Your task to perform on an android device: toggle javascript in the chrome app Image 0: 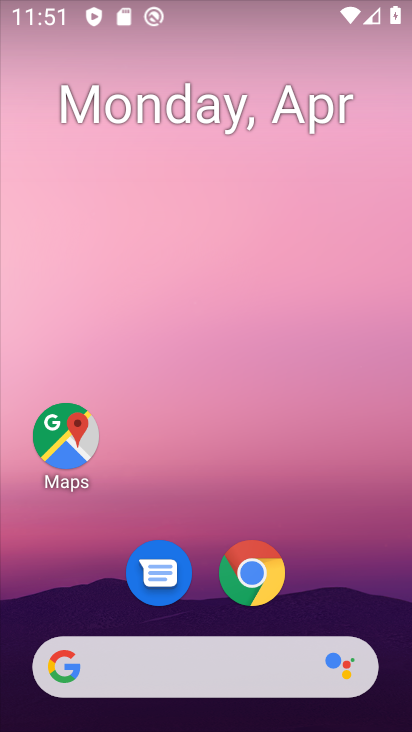
Step 0: click (223, 568)
Your task to perform on an android device: toggle javascript in the chrome app Image 1: 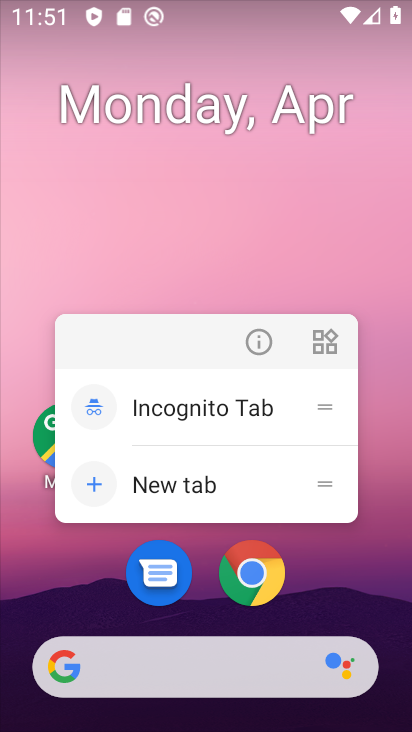
Step 1: click (235, 571)
Your task to perform on an android device: toggle javascript in the chrome app Image 2: 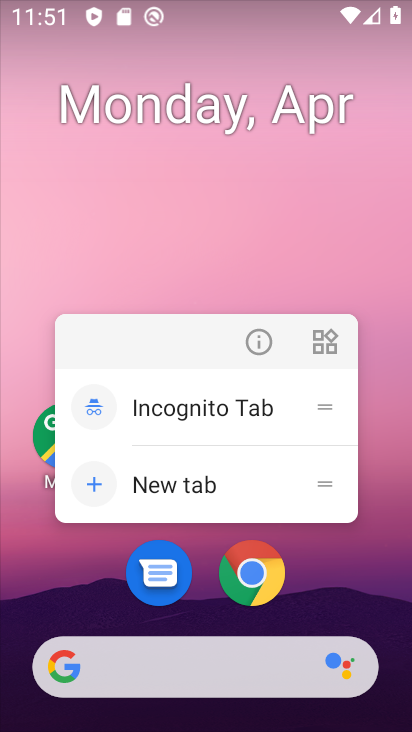
Step 2: click (253, 557)
Your task to perform on an android device: toggle javascript in the chrome app Image 3: 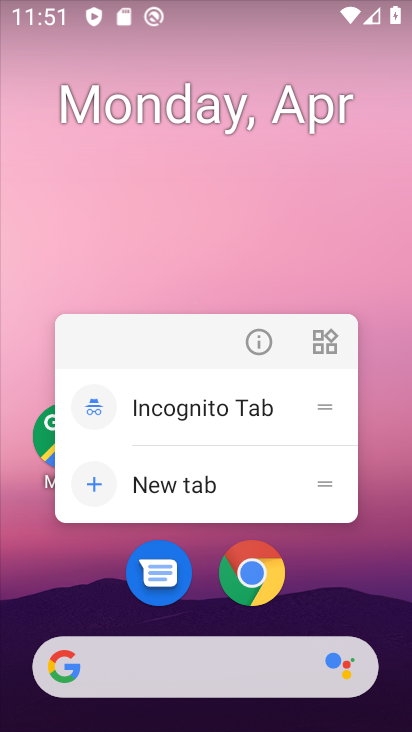
Step 3: click (251, 556)
Your task to perform on an android device: toggle javascript in the chrome app Image 4: 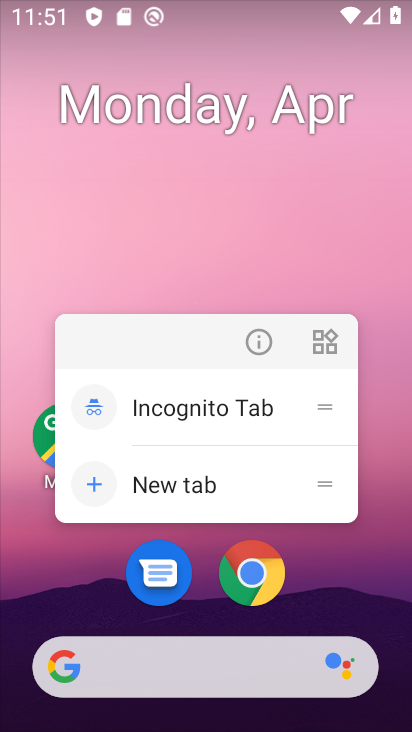
Step 4: click (264, 534)
Your task to perform on an android device: toggle javascript in the chrome app Image 5: 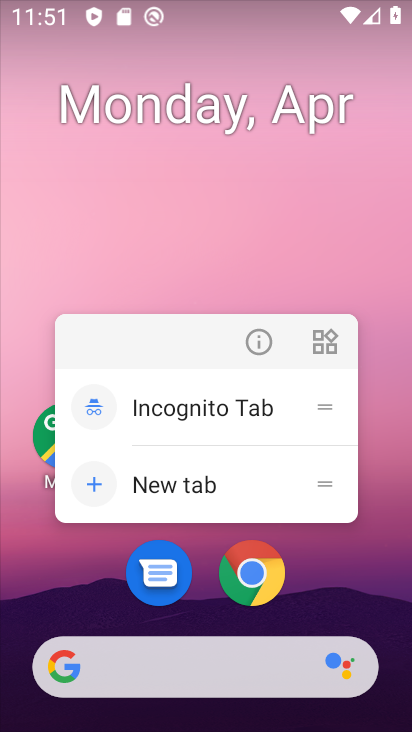
Step 5: click (257, 552)
Your task to perform on an android device: toggle javascript in the chrome app Image 6: 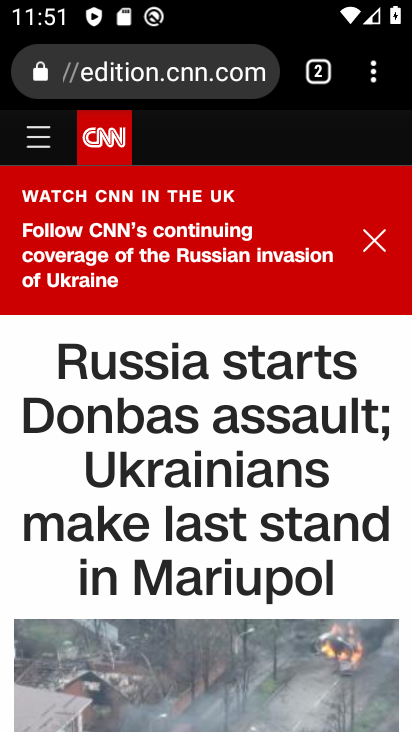
Step 6: click (365, 81)
Your task to perform on an android device: toggle javascript in the chrome app Image 7: 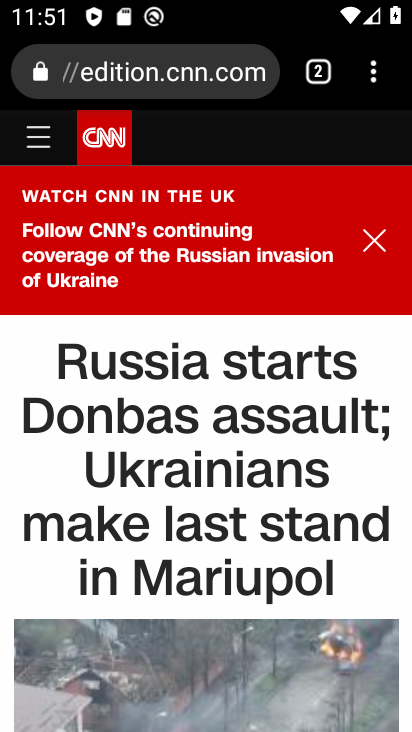
Step 7: click (371, 77)
Your task to perform on an android device: toggle javascript in the chrome app Image 8: 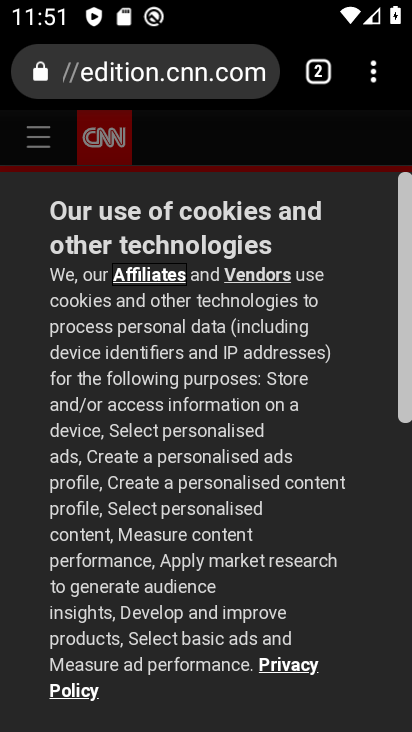
Step 8: click (371, 77)
Your task to perform on an android device: toggle javascript in the chrome app Image 9: 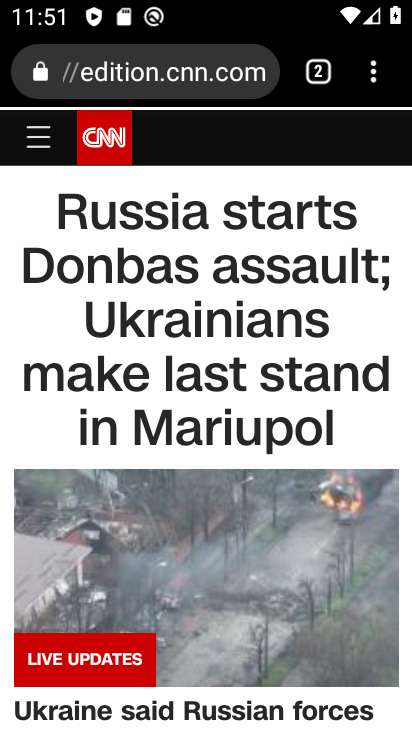
Step 9: click (368, 83)
Your task to perform on an android device: toggle javascript in the chrome app Image 10: 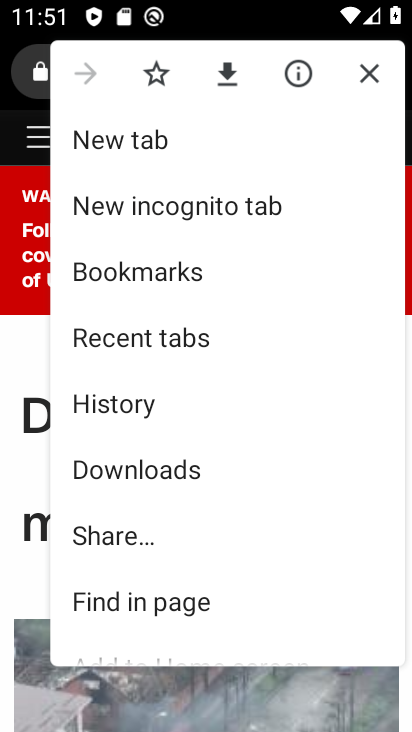
Step 10: drag from (218, 511) to (206, 177)
Your task to perform on an android device: toggle javascript in the chrome app Image 11: 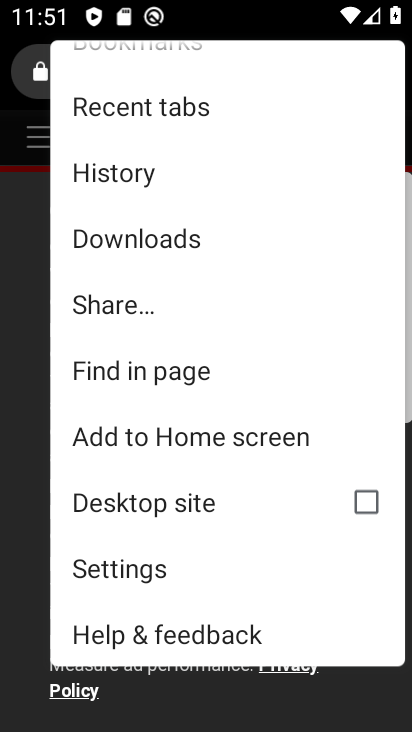
Step 11: click (142, 575)
Your task to perform on an android device: toggle javascript in the chrome app Image 12: 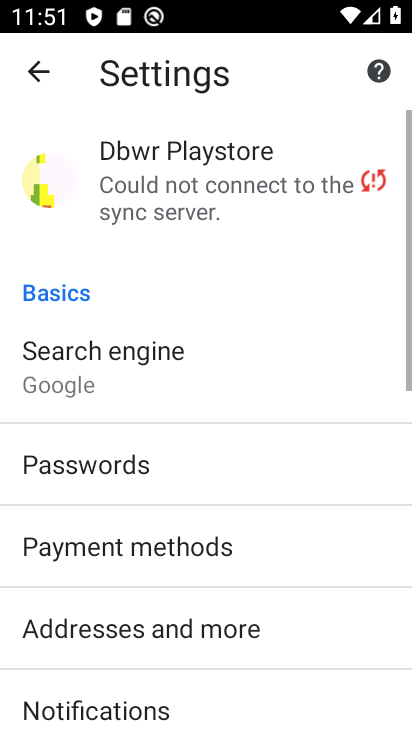
Step 12: drag from (180, 586) to (177, 158)
Your task to perform on an android device: toggle javascript in the chrome app Image 13: 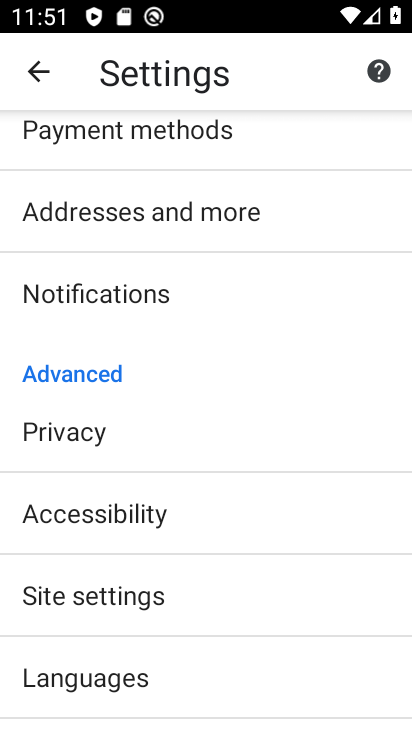
Step 13: click (111, 586)
Your task to perform on an android device: toggle javascript in the chrome app Image 14: 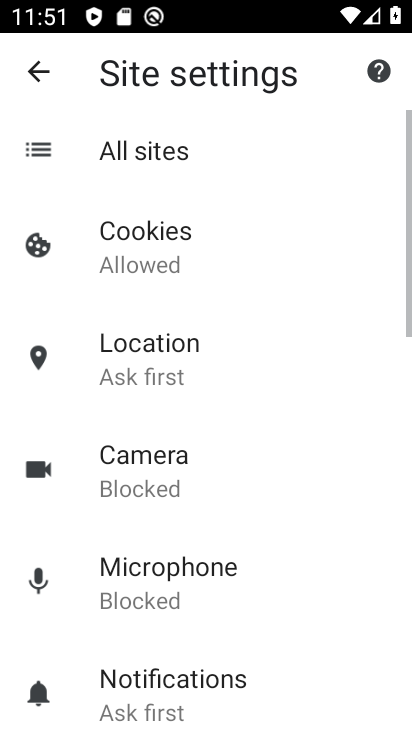
Step 14: drag from (167, 587) to (147, 192)
Your task to perform on an android device: toggle javascript in the chrome app Image 15: 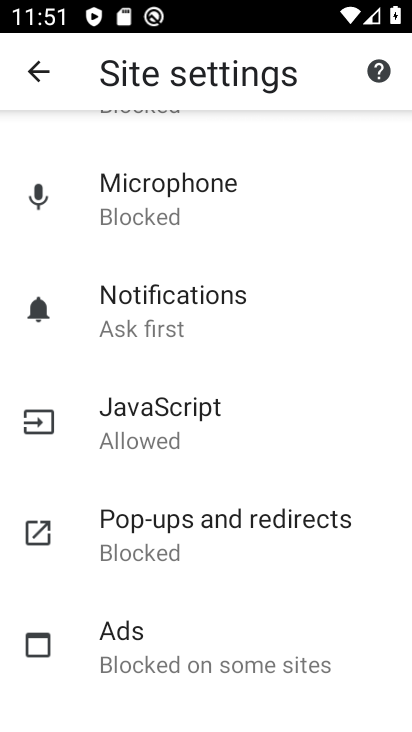
Step 15: click (156, 419)
Your task to perform on an android device: toggle javascript in the chrome app Image 16: 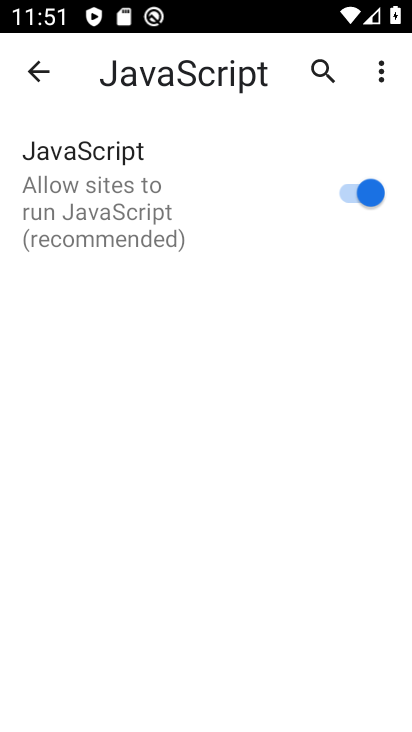
Step 16: click (364, 183)
Your task to perform on an android device: toggle javascript in the chrome app Image 17: 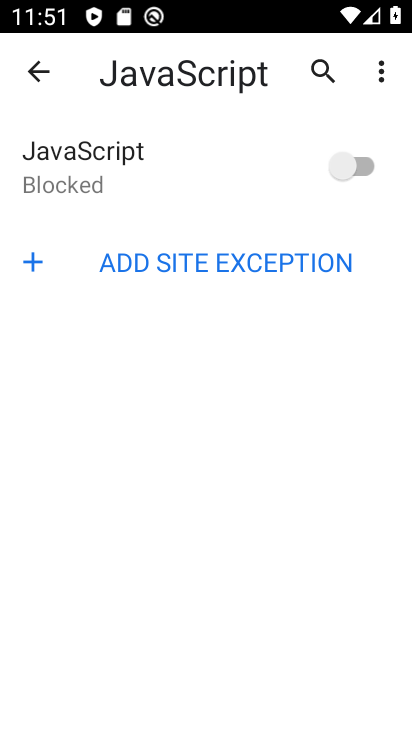
Step 17: task complete